Your task to perform on an android device: Show me the alarms in the clock app Image 0: 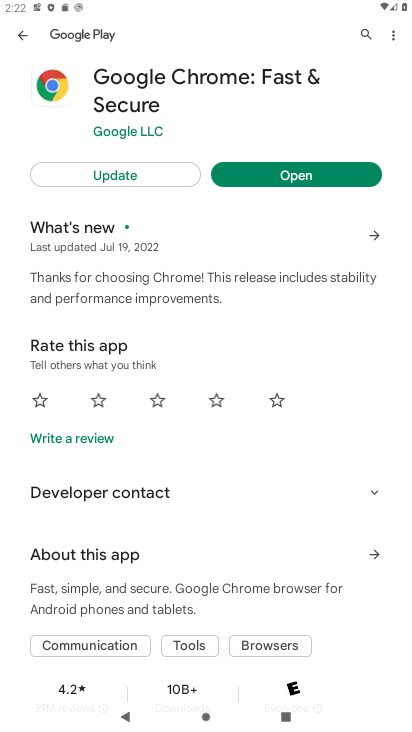
Step 0: press home button
Your task to perform on an android device: Show me the alarms in the clock app Image 1: 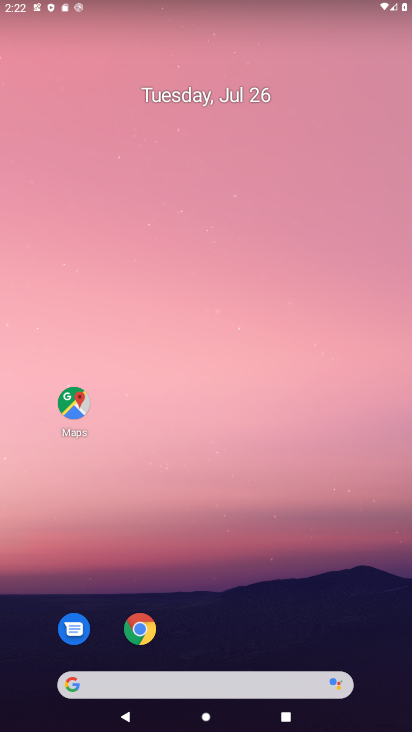
Step 1: drag from (215, 618) to (217, 217)
Your task to perform on an android device: Show me the alarms in the clock app Image 2: 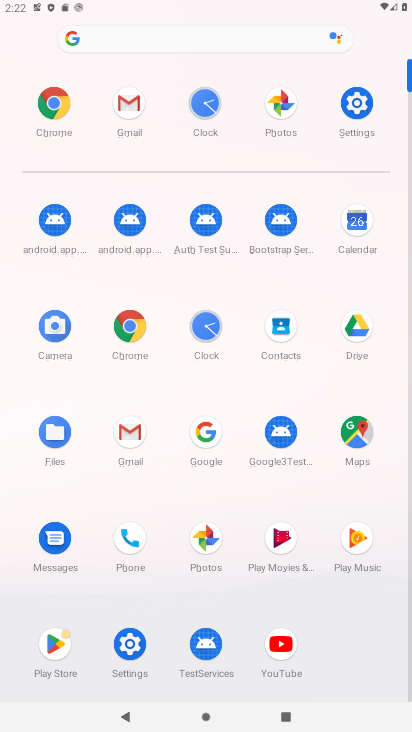
Step 2: click (202, 127)
Your task to perform on an android device: Show me the alarms in the clock app Image 3: 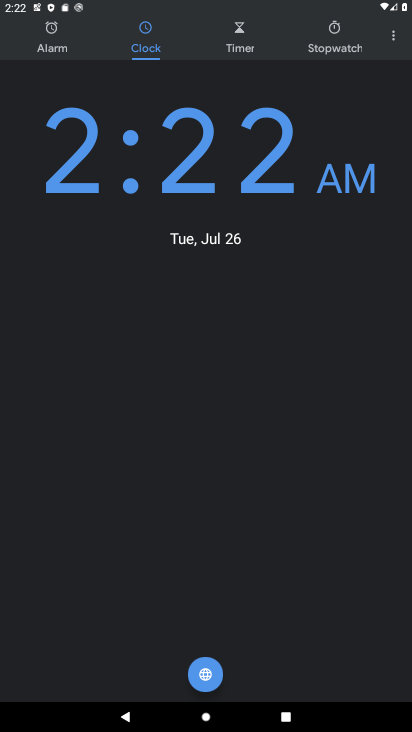
Step 3: click (48, 55)
Your task to perform on an android device: Show me the alarms in the clock app Image 4: 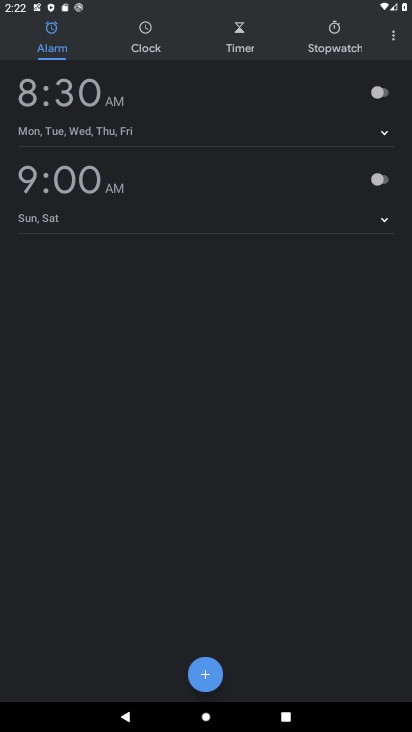
Step 4: task complete